Your task to perform on an android device: turn notification dots on Image 0: 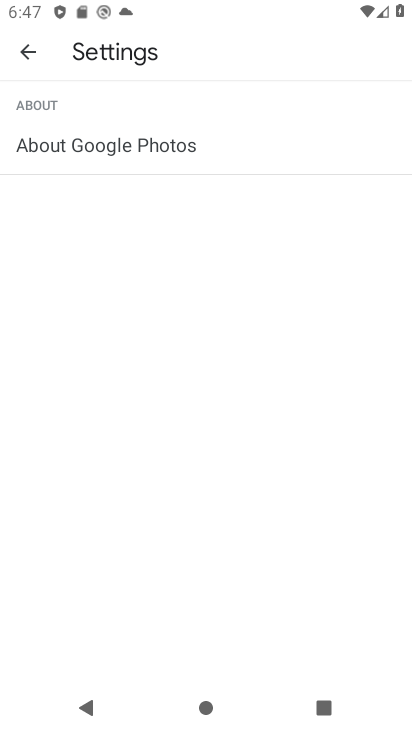
Step 0: press home button
Your task to perform on an android device: turn notification dots on Image 1: 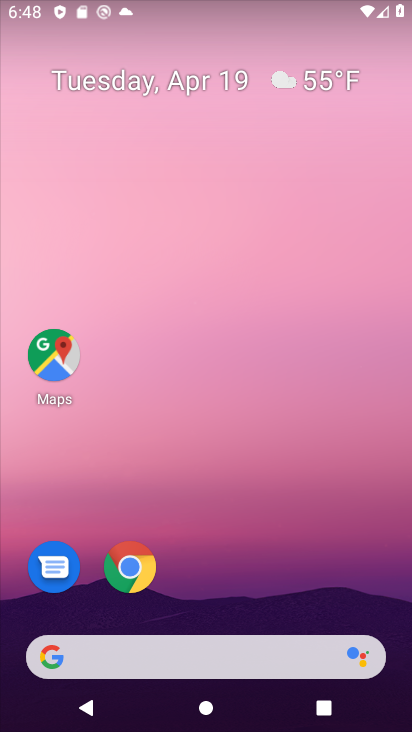
Step 1: click (320, 29)
Your task to perform on an android device: turn notification dots on Image 2: 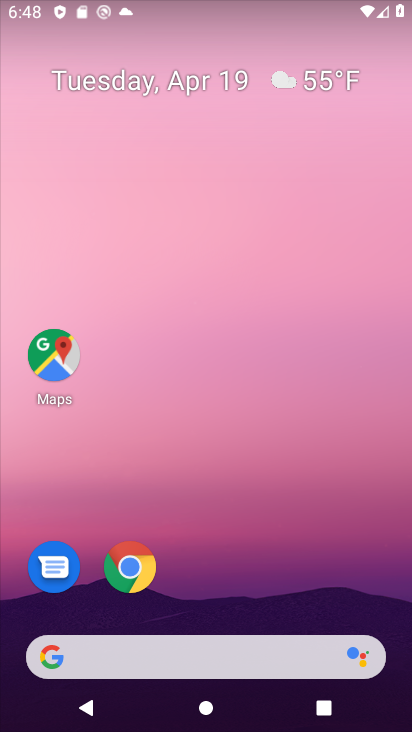
Step 2: drag from (342, 577) to (335, 79)
Your task to perform on an android device: turn notification dots on Image 3: 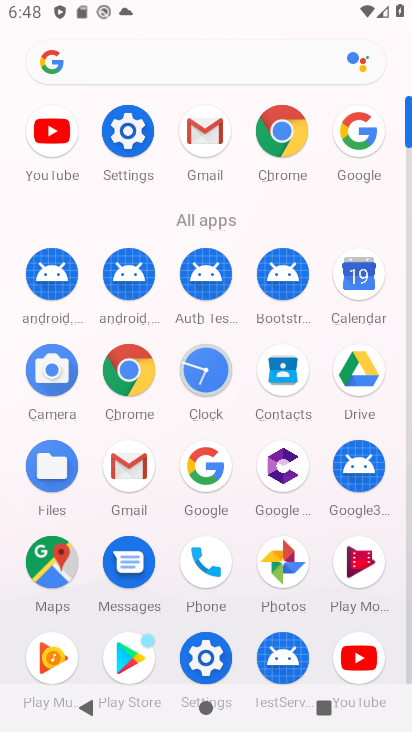
Step 3: click (129, 141)
Your task to perform on an android device: turn notification dots on Image 4: 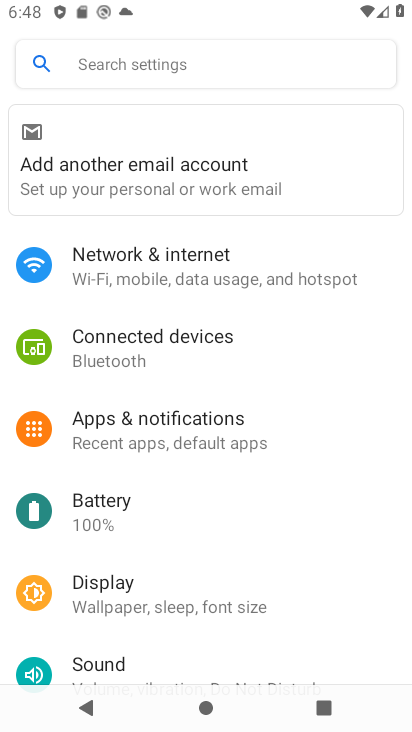
Step 4: click (132, 131)
Your task to perform on an android device: turn notification dots on Image 5: 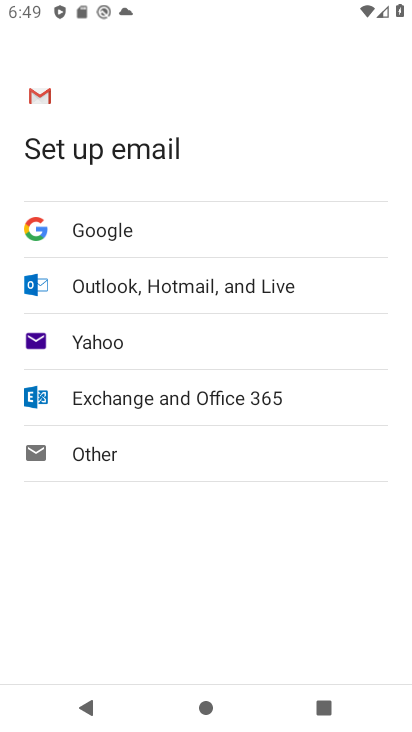
Step 5: press home button
Your task to perform on an android device: turn notification dots on Image 6: 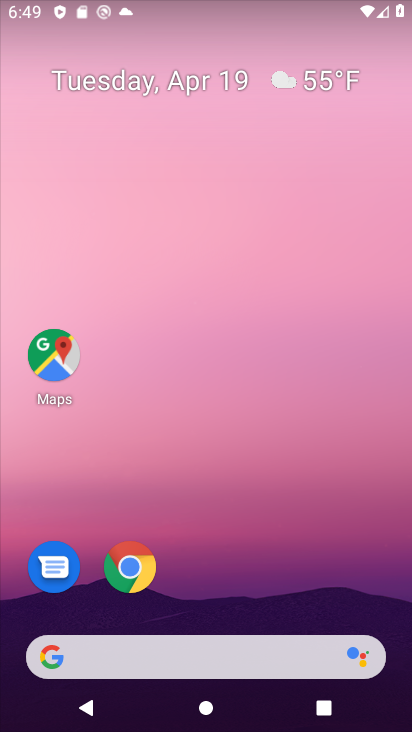
Step 6: drag from (328, 528) to (324, 50)
Your task to perform on an android device: turn notification dots on Image 7: 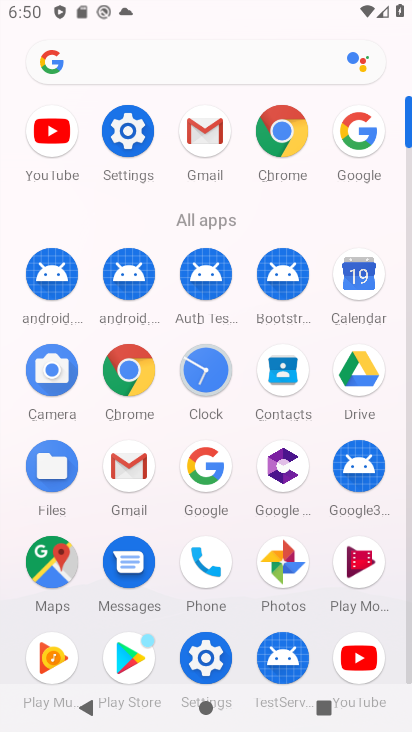
Step 7: click (206, 638)
Your task to perform on an android device: turn notification dots on Image 8: 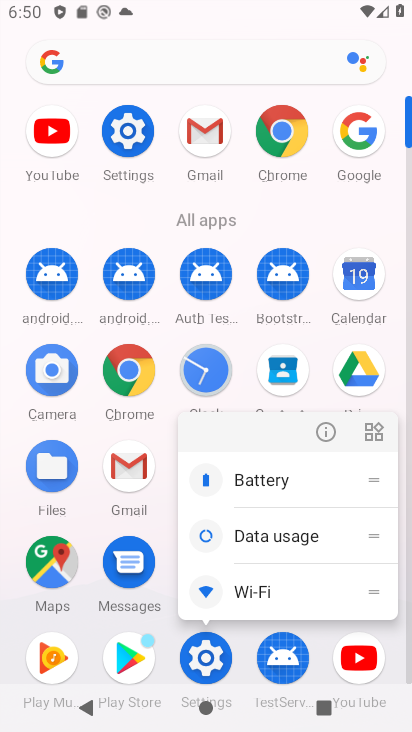
Step 8: click (332, 435)
Your task to perform on an android device: turn notification dots on Image 9: 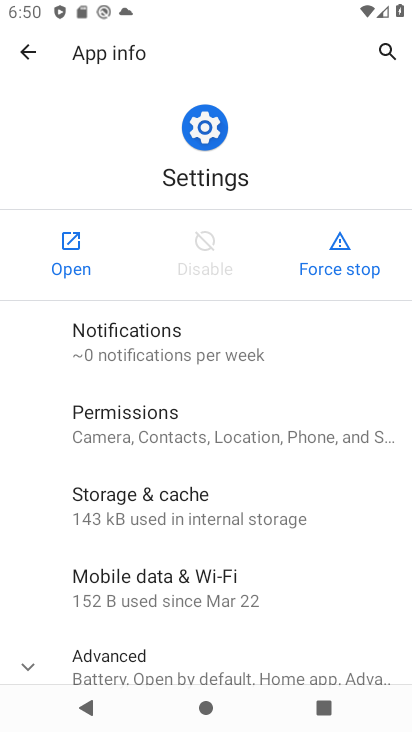
Step 9: click (122, 665)
Your task to perform on an android device: turn notification dots on Image 10: 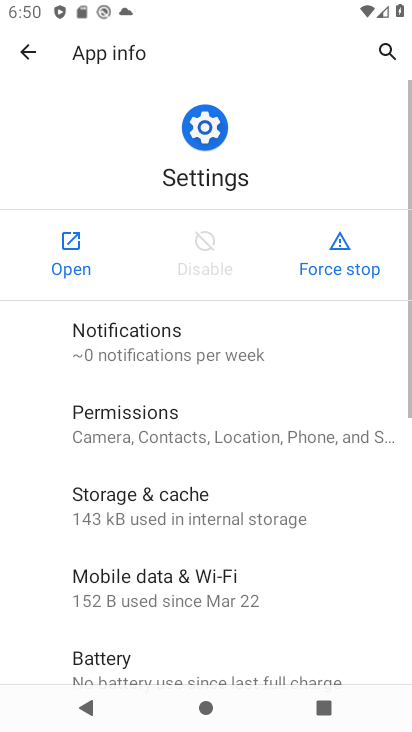
Step 10: drag from (327, 654) to (270, 225)
Your task to perform on an android device: turn notification dots on Image 11: 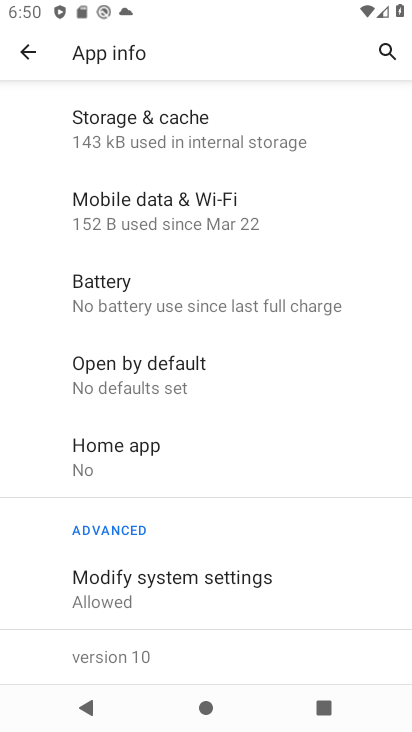
Step 11: drag from (265, 570) to (222, 643)
Your task to perform on an android device: turn notification dots on Image 12: 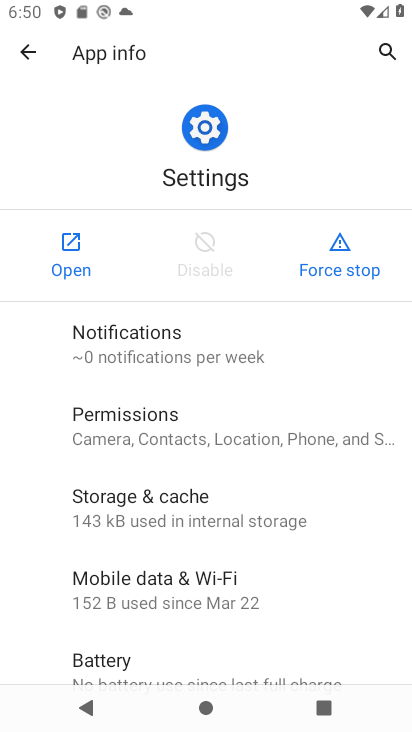
Step 12: click (192, 342)
Your task to perform on an android device: turn notification dots on Image 13: 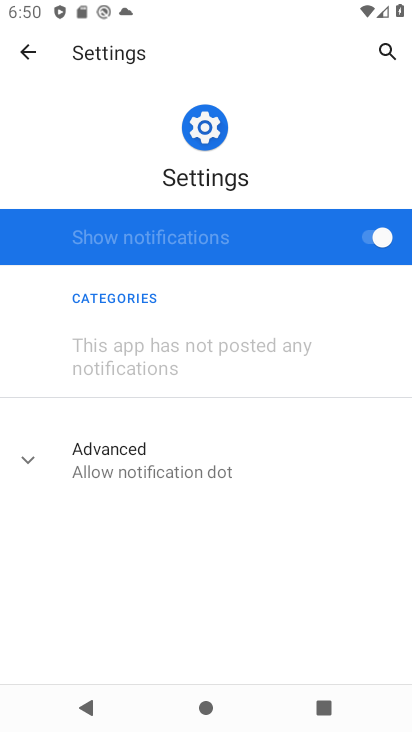
Step 13: click (238, 506)
Your task to perform on an android device: turn notification dots on Image 14: 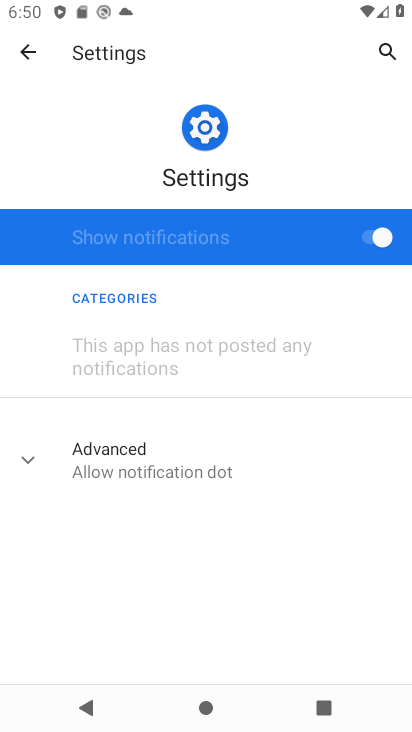
Step 14: click (215, 455)
Your task to perform on an android device: turn notification dots on Image 15: 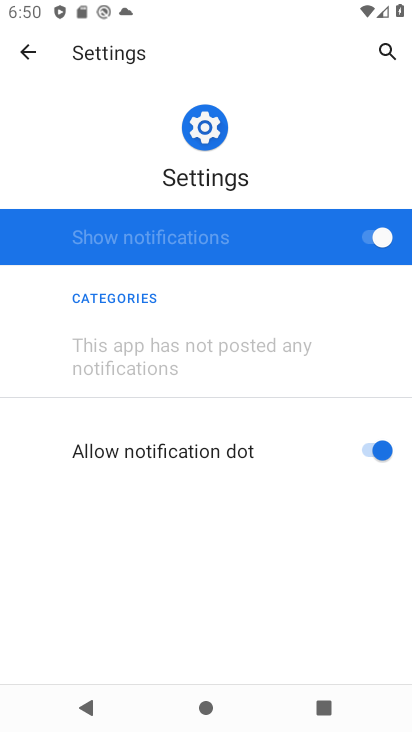
Step 15: click (369, 458)
Your task to perform on an android device: turn notification dots on Image 16: 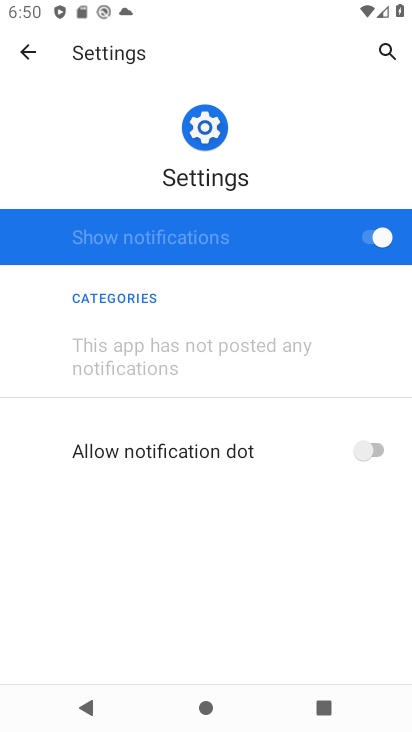
Step 16: task complete